Your task to perform on an android device: Show the shopping cart on bestbuy.com. Search for razer naga on bestbuy.com, select the first entry, and add it to the cart. Image 0: 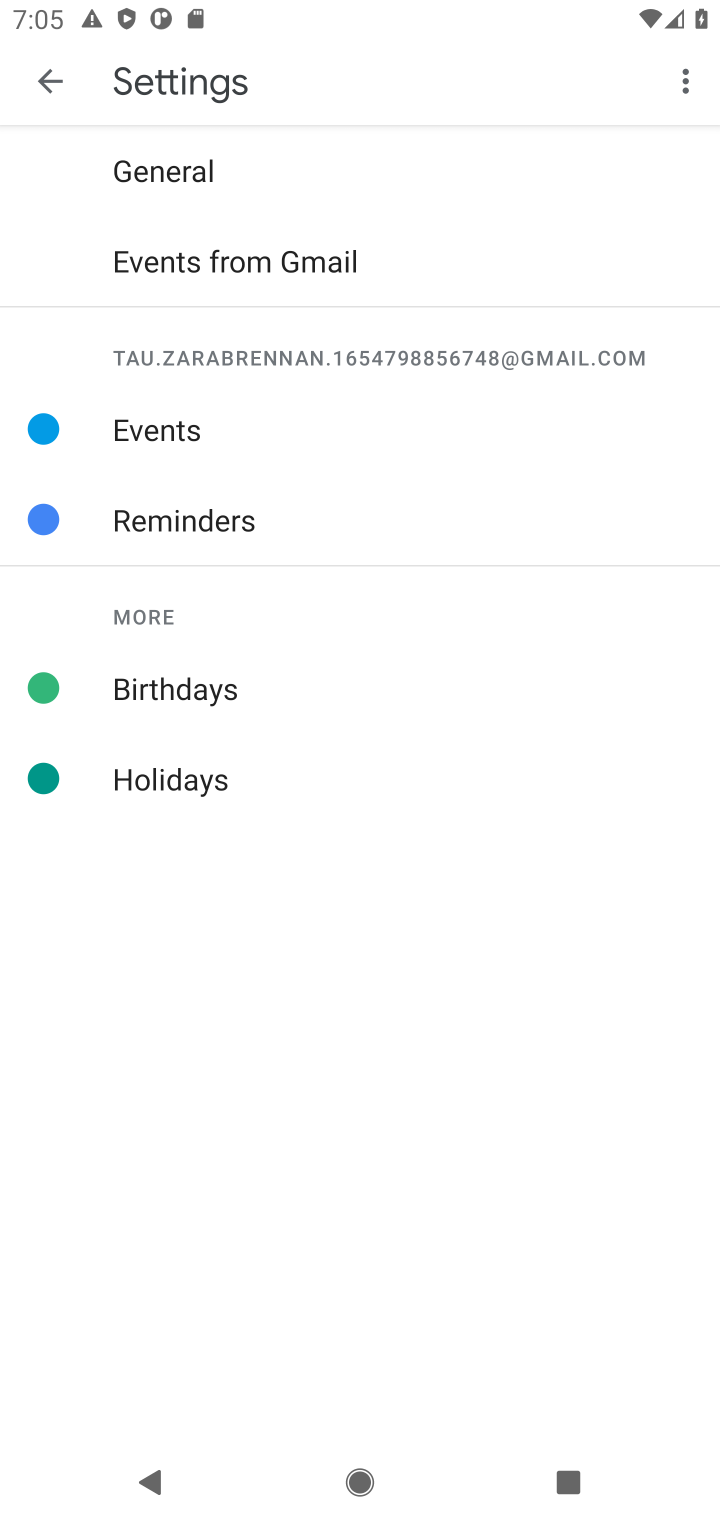
Step 0: press home button
Your task to perform on an android device: Show the shopping cart on bestbuy.com. Search for razer naga on bestbuy.com, select the first entry, and add it to the cart. Image 1: 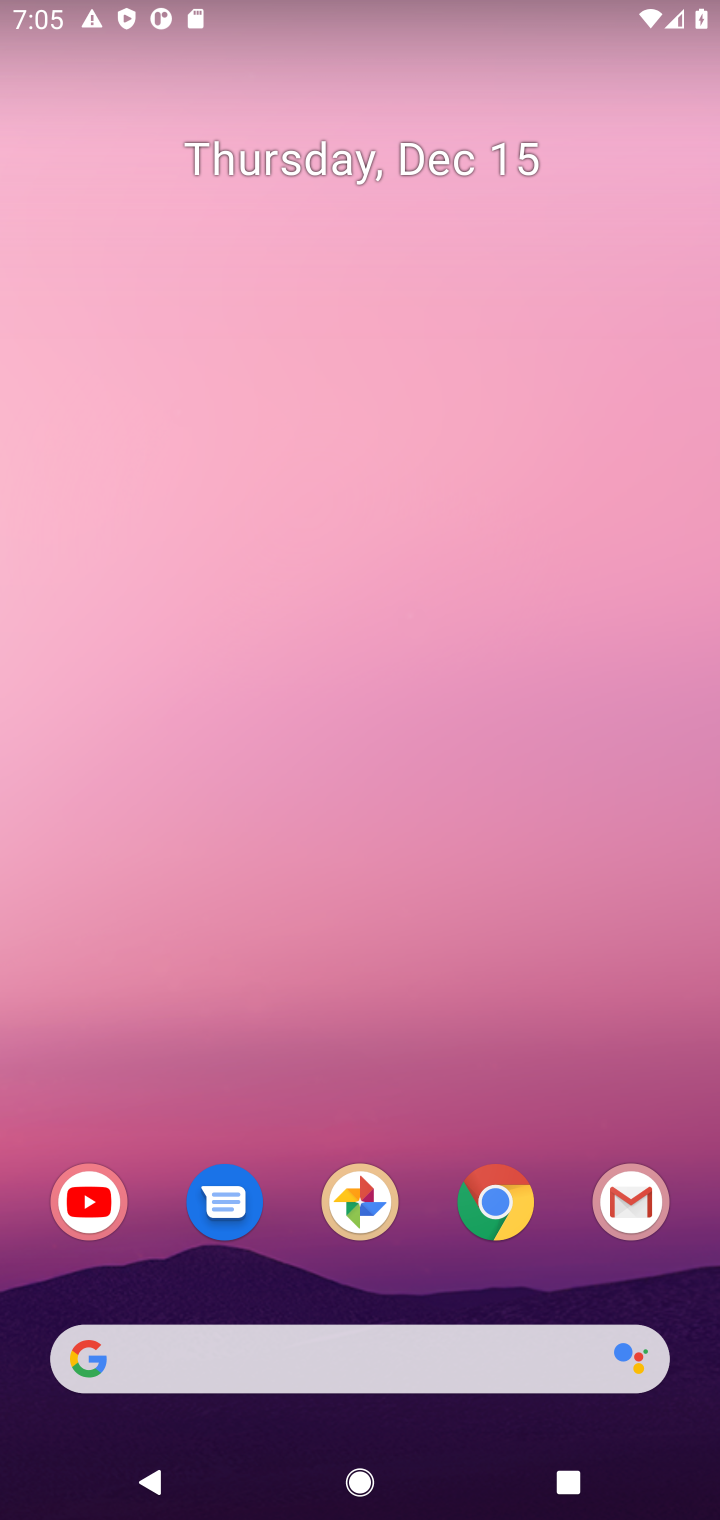
Step 1: click (507, 1207)
Your task to perform on an android device: Show the shopping cart on bestbuy.com. Search for razer naga on bestbuy.com, select the first entry, and add it to the cart. Image 2: 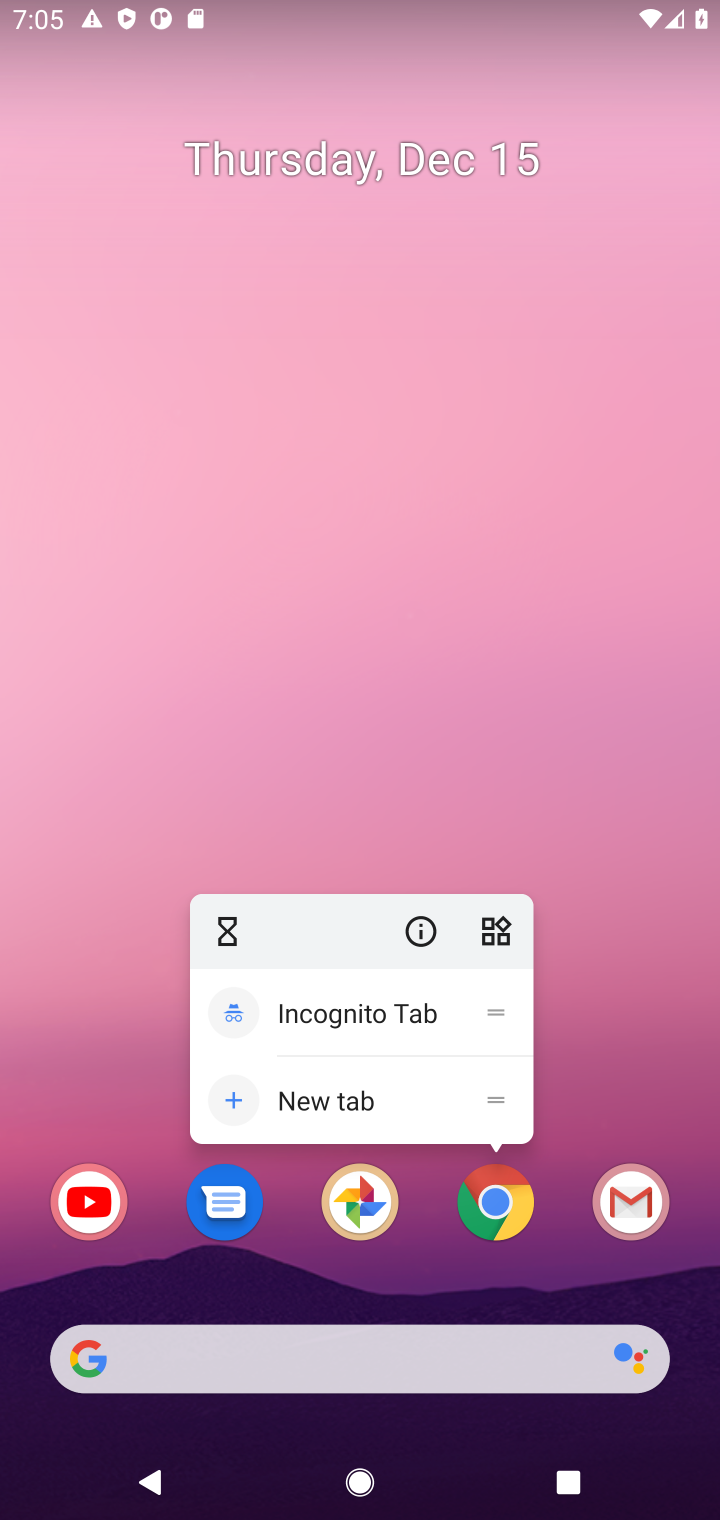
Step 2: click (492, 1210)
Your task to perform on an android device: Show the shopping cart on bestbuy.com. Search for razer naga on bestbuy.com, select the first entry, and add it to the cart. Image 3: 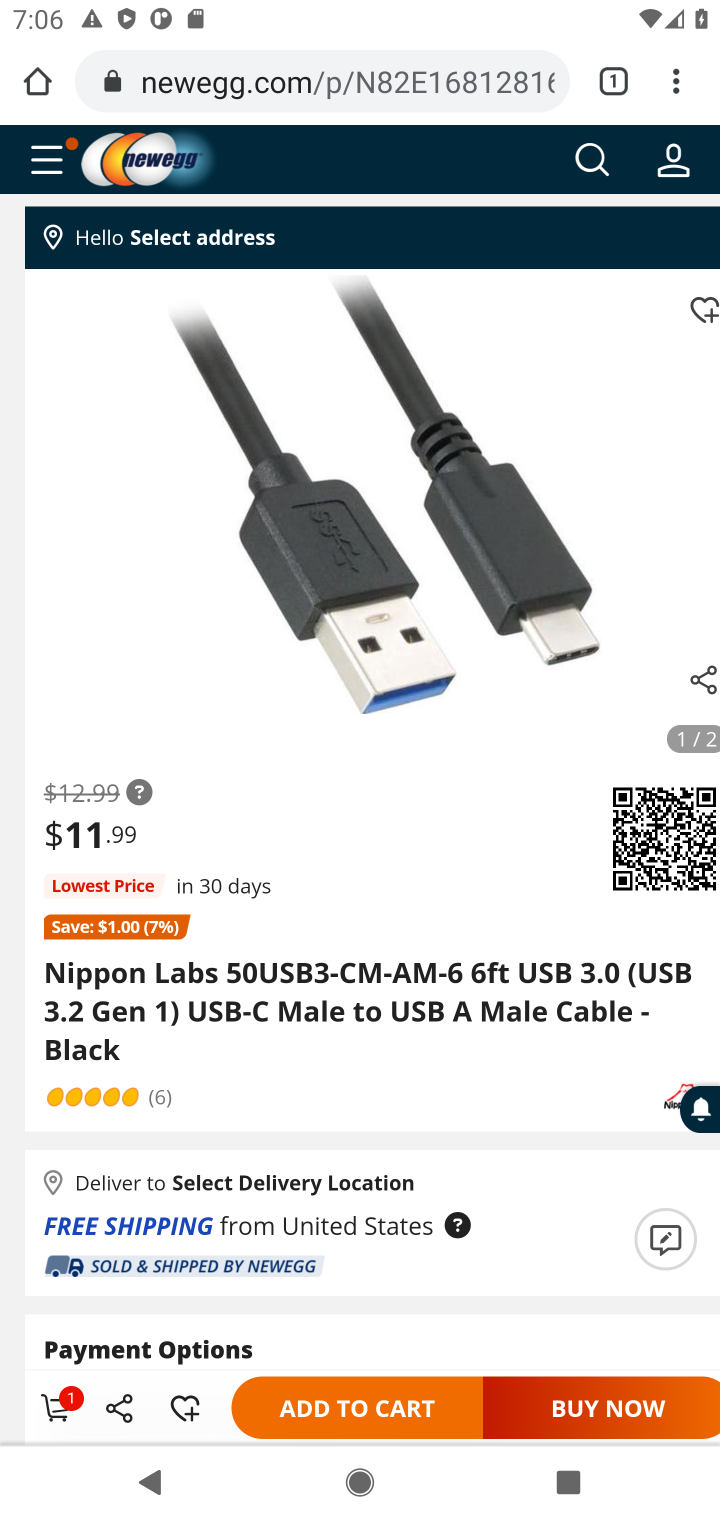
Step 3: click (292, 89)
Your task to perform on an android device: Show the shopping cart on bestbuy.com. Search for razer naga on bestbuy.com, select the first entry, and add it to the cart. Image 4: 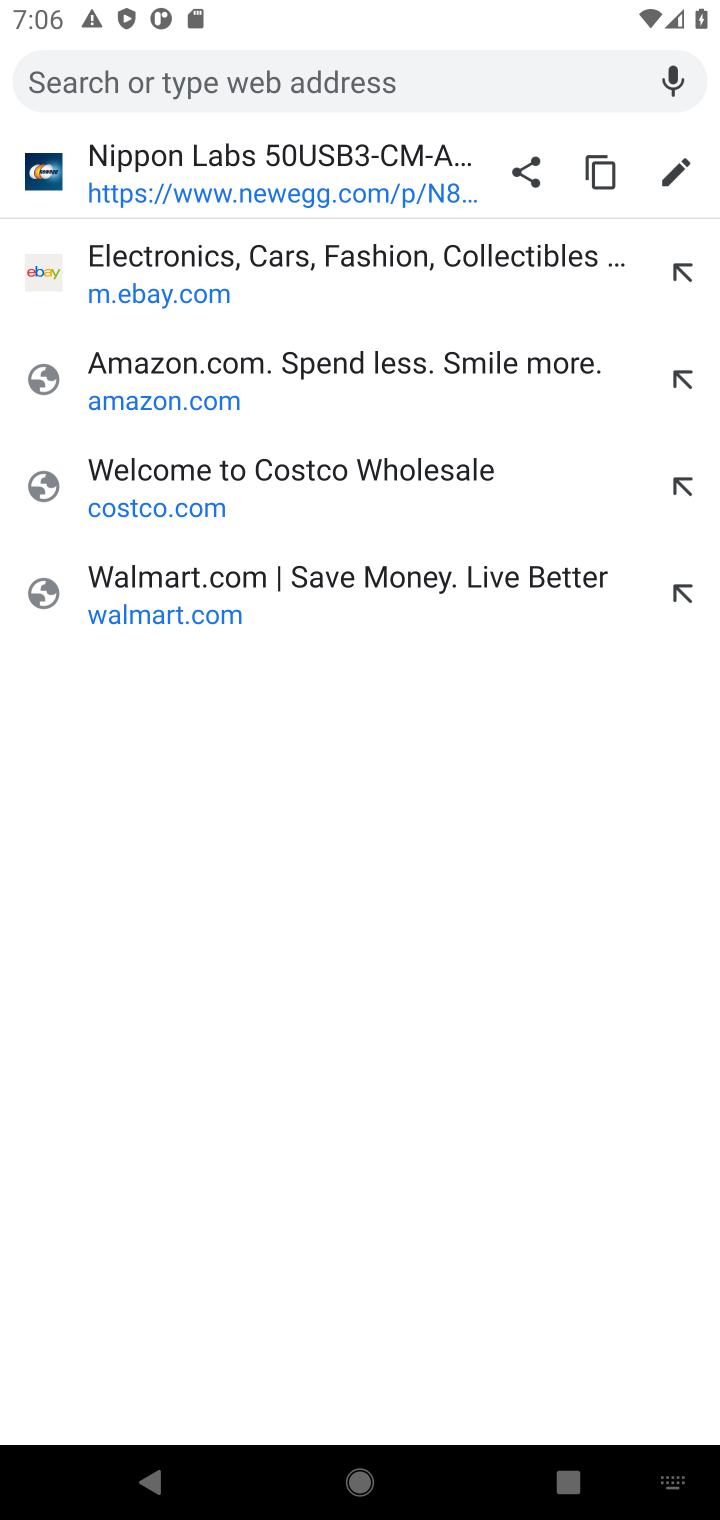
Step 4: type "bestbuy.com"
Your task to perform on an android device: Show the shopping cart on bestbuy.com. Search for razer naga on bestbuy.com, select the first entry, and add it to the cart. Image 5: 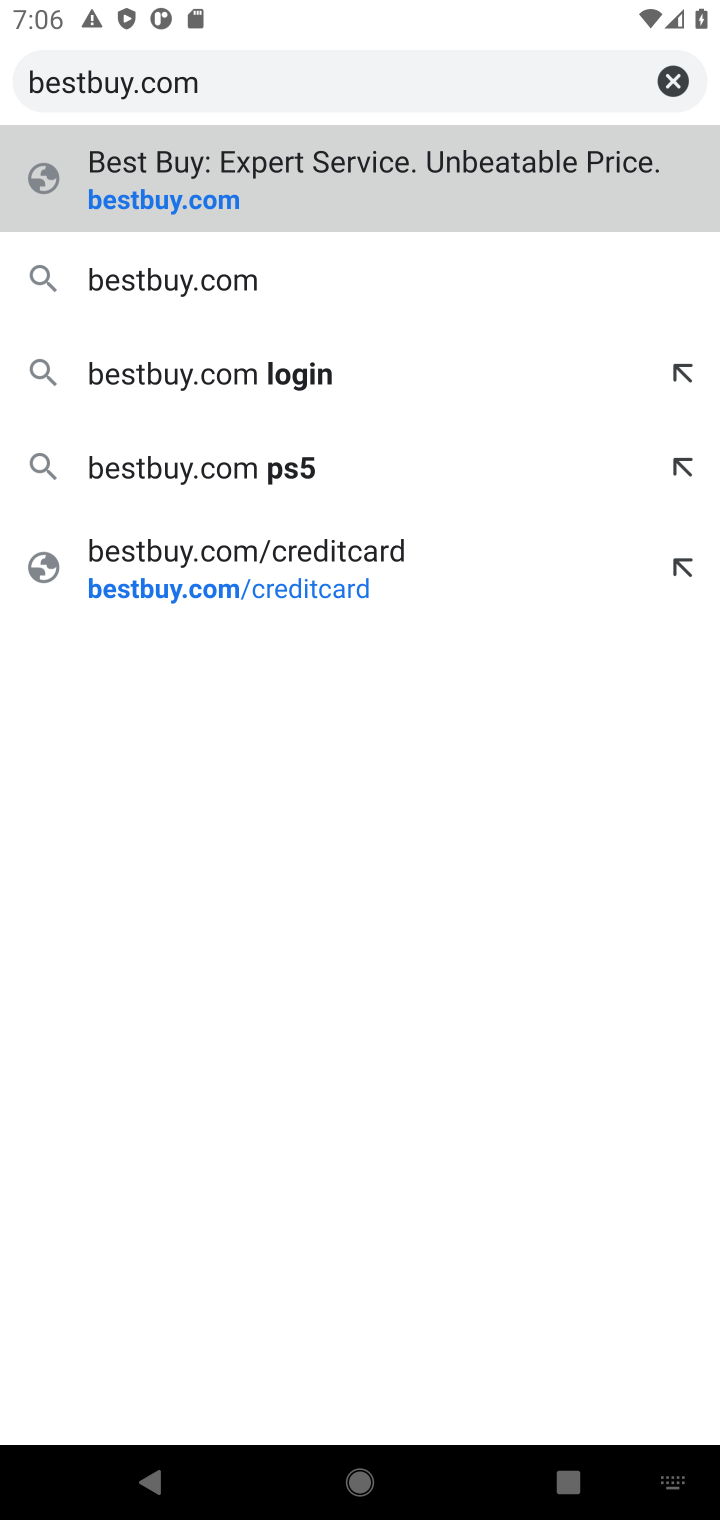
Step 5: click (184, 191)
Your task to perform on an android device: Show the shopping cart on bestbuy.com. Search for razer naga on bestbuy.com, select the first entry, and add it to the cart. Image 6: 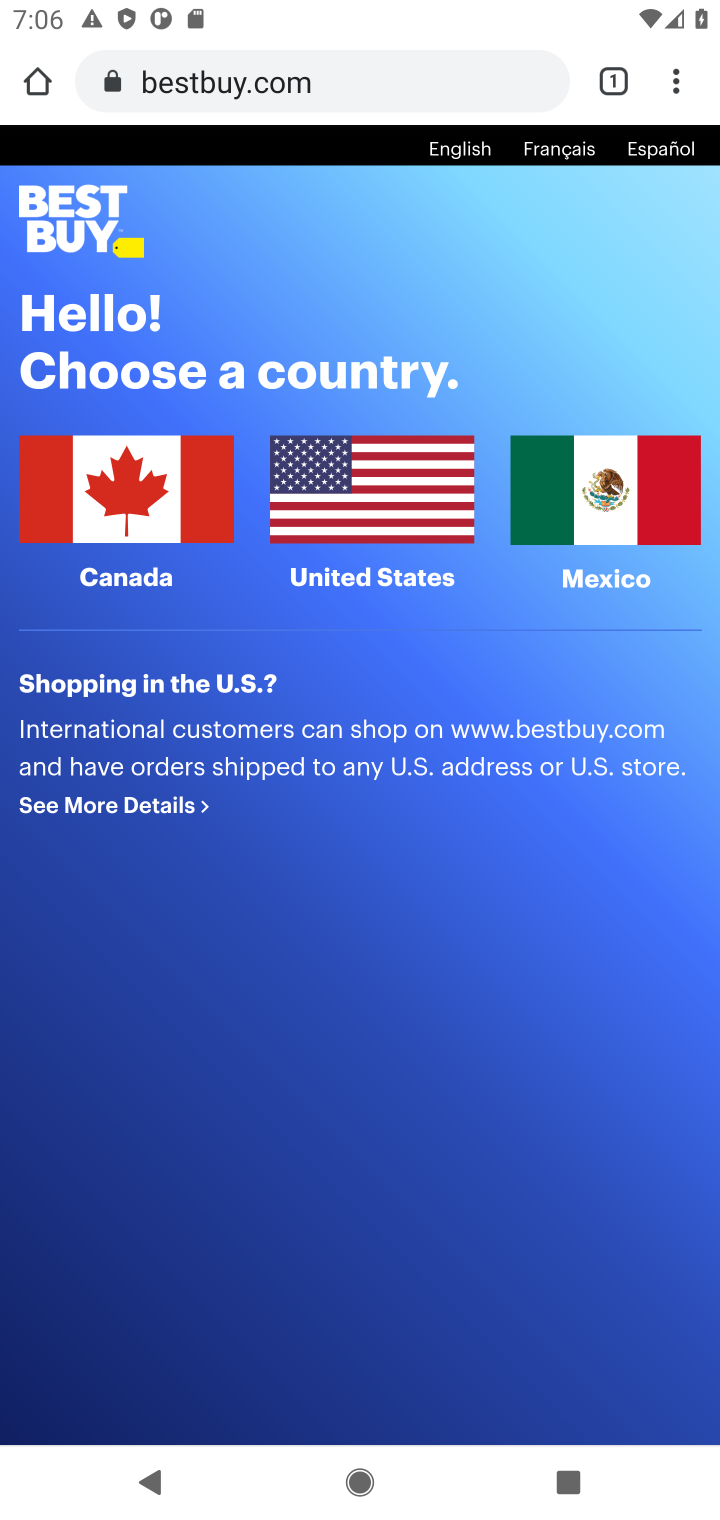
Step 6: click (351, 499)
Your task to perform on an android device: Show the shopping cart on bestbuy.com. Search for razer naga on bestbuy.com, select the first entry, and add it to the cart. Image 7: 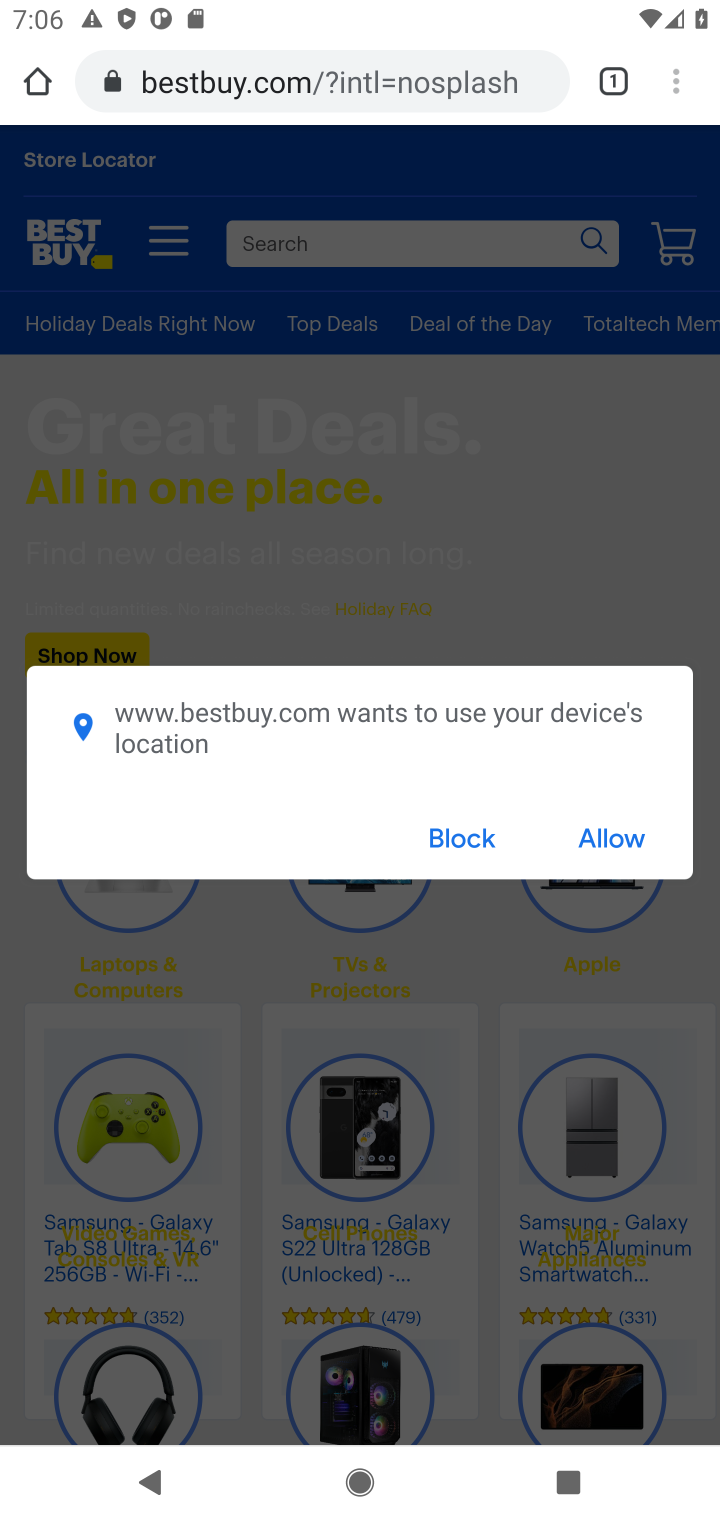
Step 7: click (449, 846)
Your task to perform on an android device: Show the shopping cart on bestbuy.com. Search for razer naga on bestbuy.com, select the first entry, and add it to the cart. Image 8: 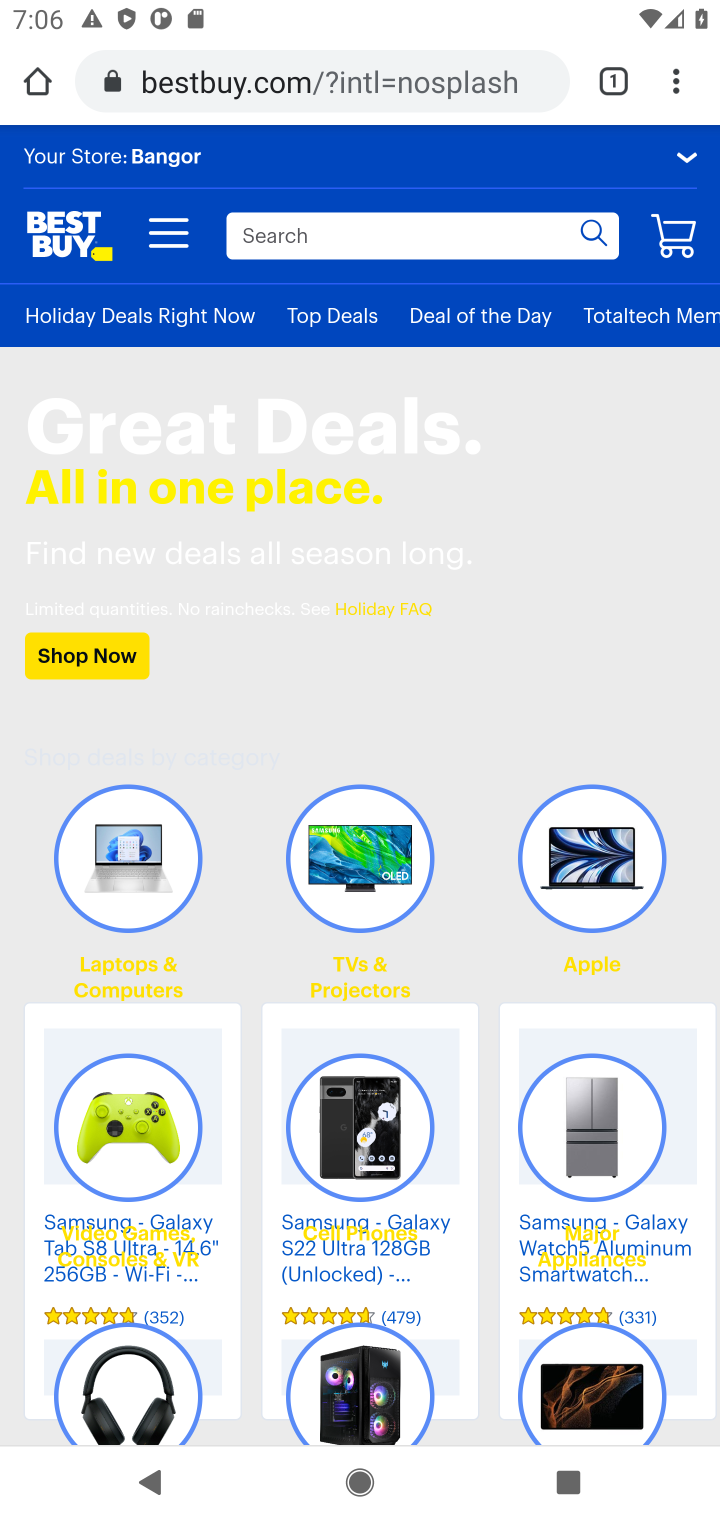
Step 8: click (660, 251)
Your task to perform on an android device: Show the shopping cart on bestbuy.com. Search for razer naga on bestbuy.com, select the first entry, and add it to the cart. Image 9: 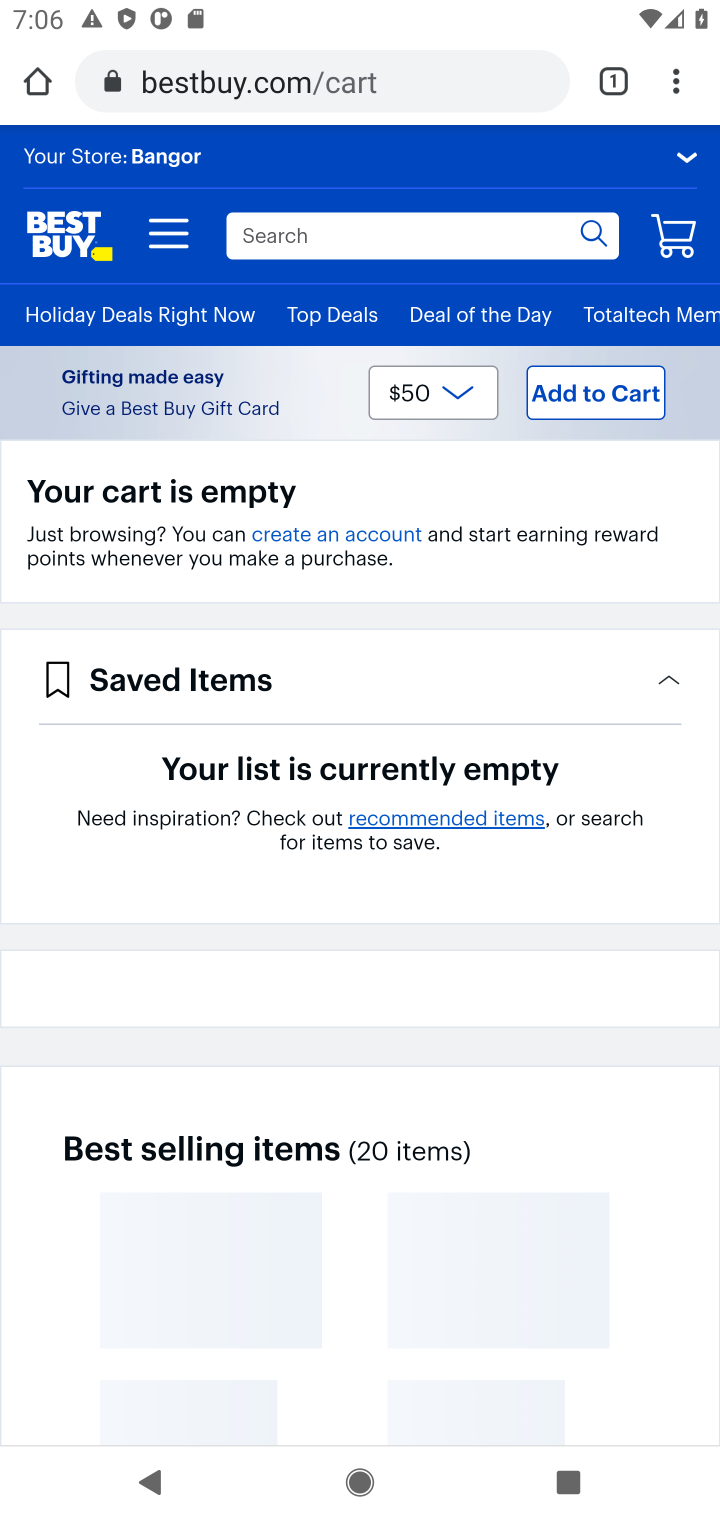
Step 9: click (335, 238)
Your task to perform on an android device: Show the shopping cart on bestbuy.com. Search for razer naga on bestbuy.com, select the first entry, and add it to the cart. Image 10: 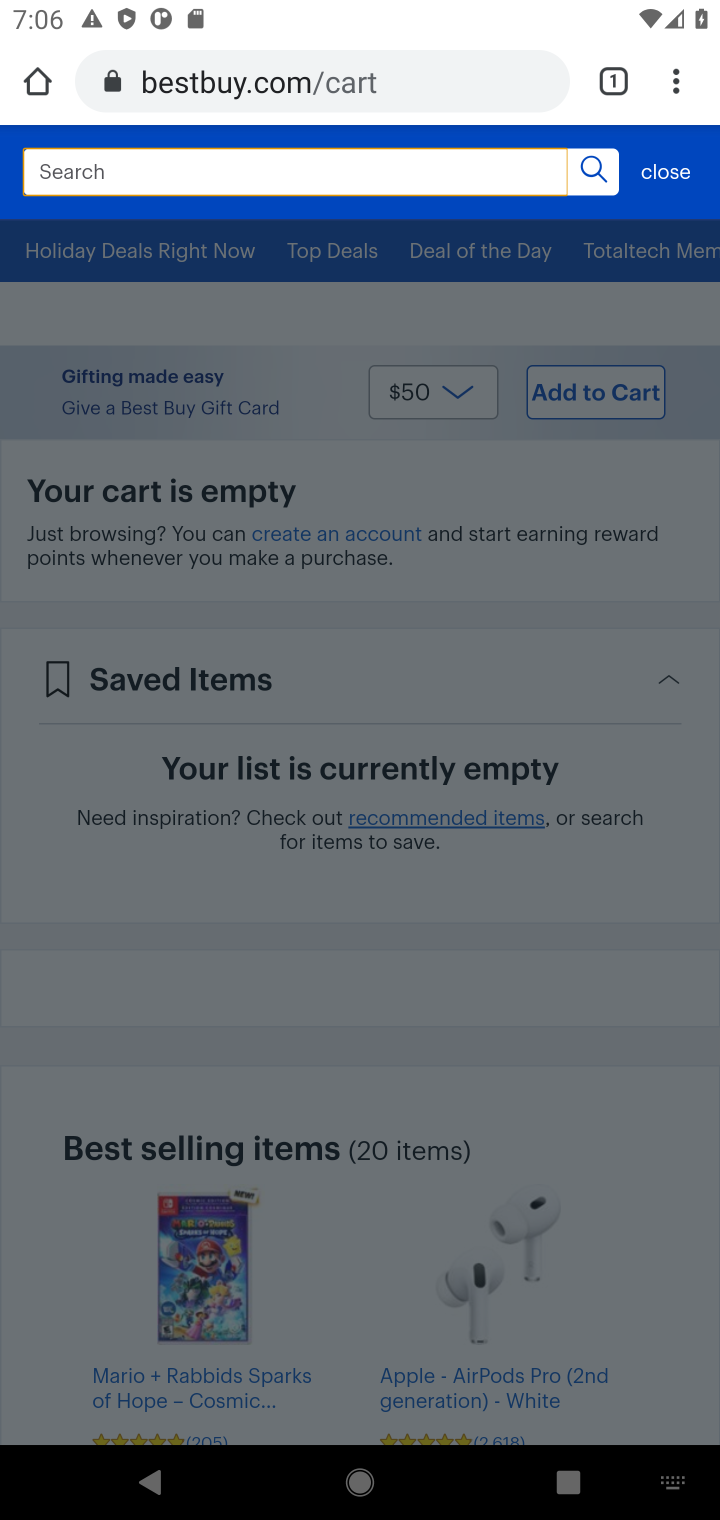
Step 10: type "razer naga "
Your task to perform on an android device: Show the shopping cart on bestbuy.com. Search for razer naga on bestbuy.com, select the first entry, and add it to the cart. Image 11: 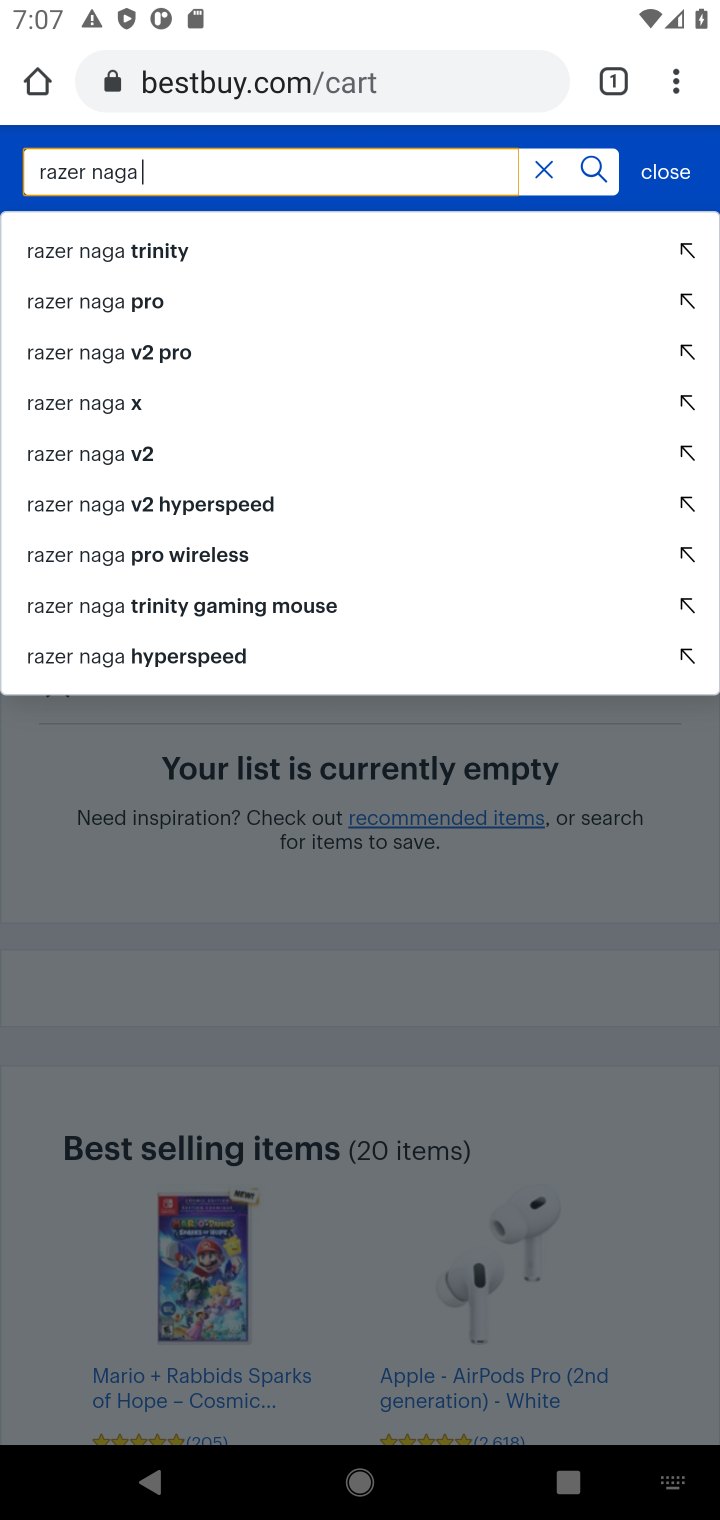
Step 11: click (594, 177)
Your task to perform on an android device: Show the shopping cart on bestbuy.com. Search for razer naga on bestbuy.com, select the first entry, and add it to the cart. Image 12: 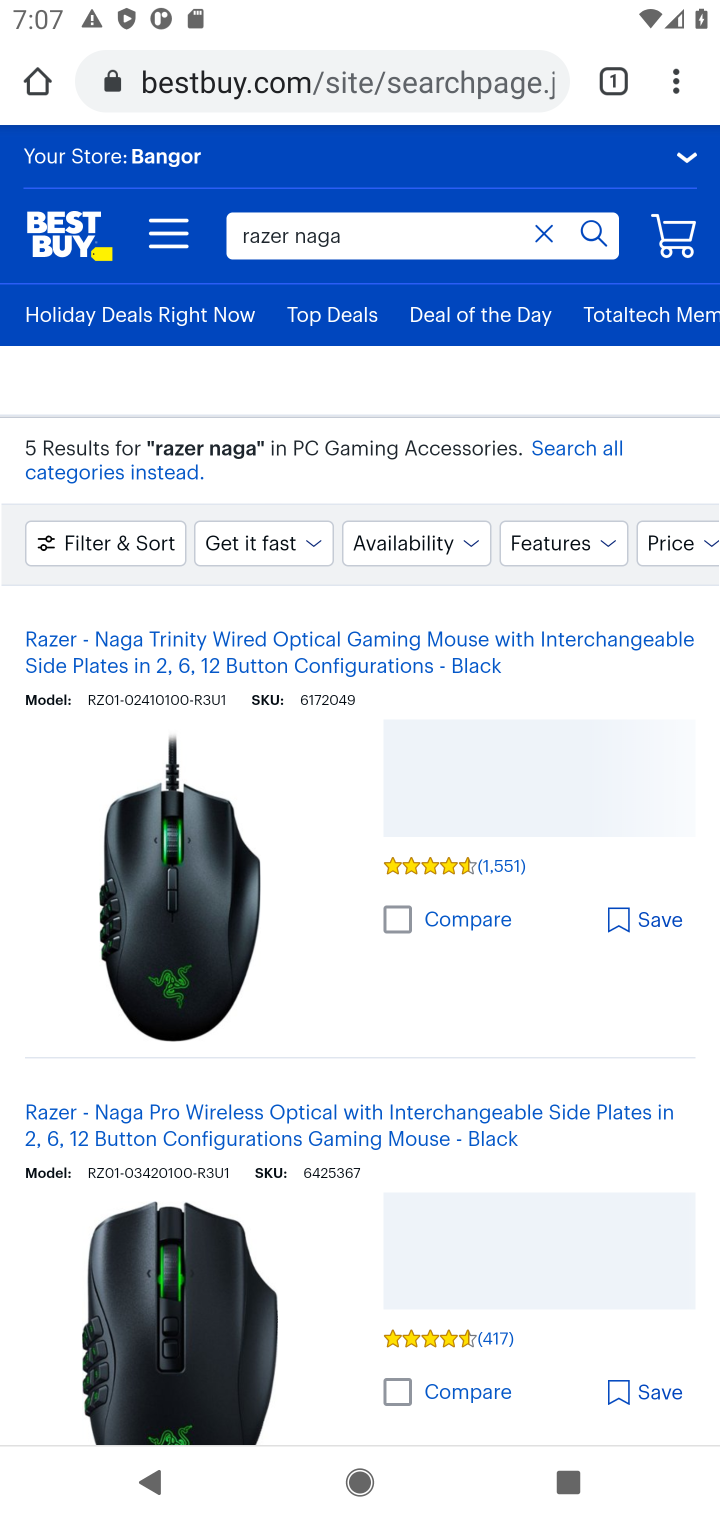
Step 12: click (192, 937)
Your task to perform on an android device: Show the shopping cart on bestbuy.com. Search for razer naga on bestbuy.com, select the first entry, and add it to the cart. Image 13: 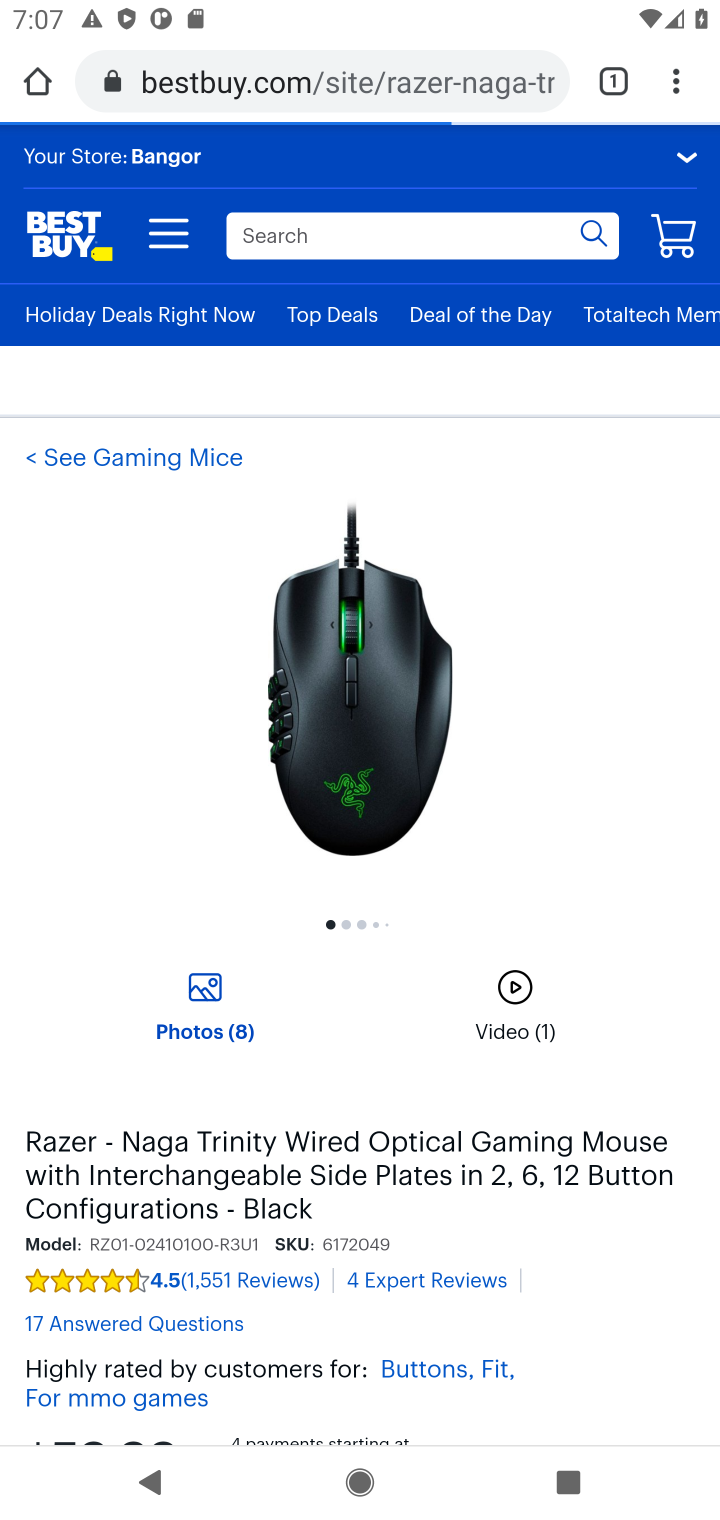
Step 13: drag from (251, 1048) to (218, 514)
Your task to perform on an android device: Show the shopping cart on bestbuy.com. Search for razer naga on bestbuy.com, select the first entry, and add it to the cart. Image 14: 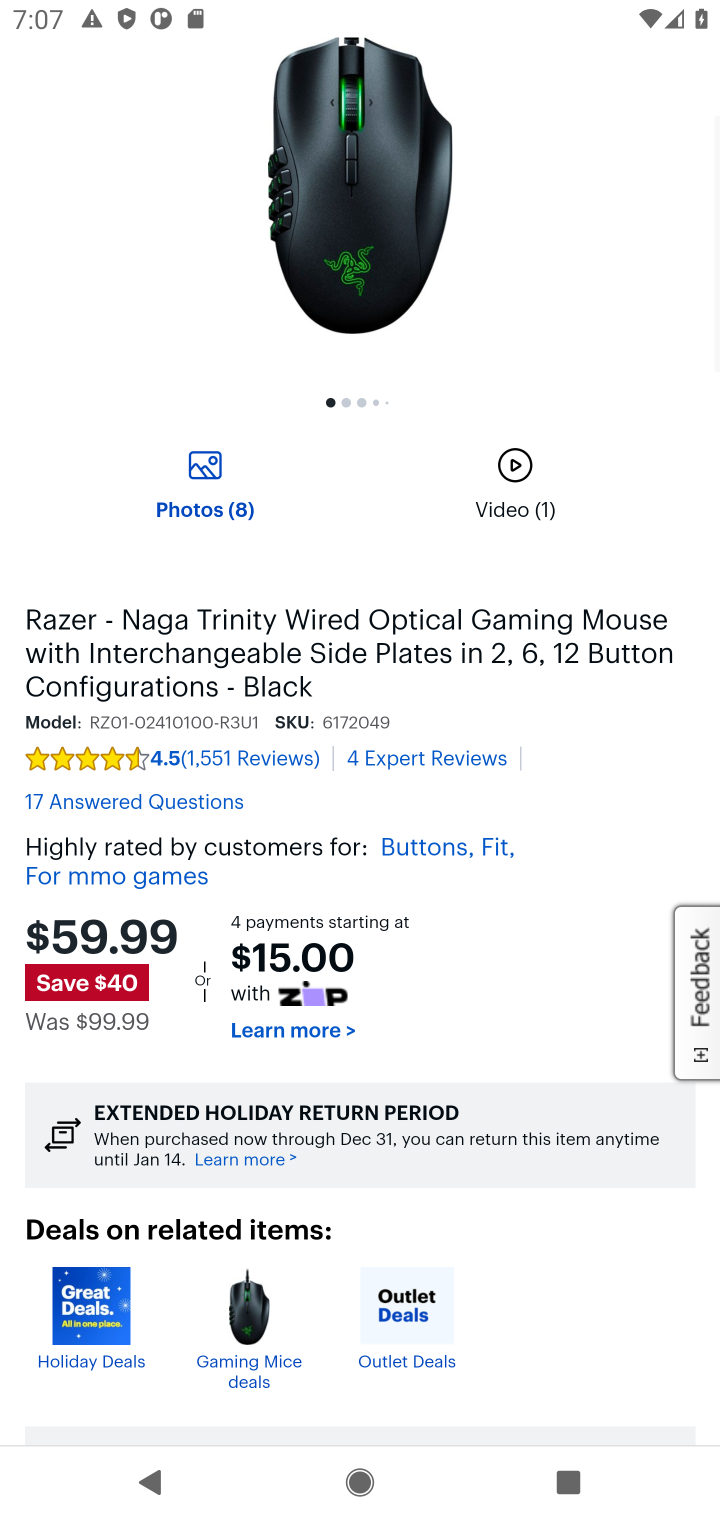
Step 14: drag from (260, 1051) to (279, 446)
Your task to perform on an android device: Show the shopping cart on bestbuy.com. Search for razer naga on bestbuy.com, select the first entry, and add it to the cart. Image 15: 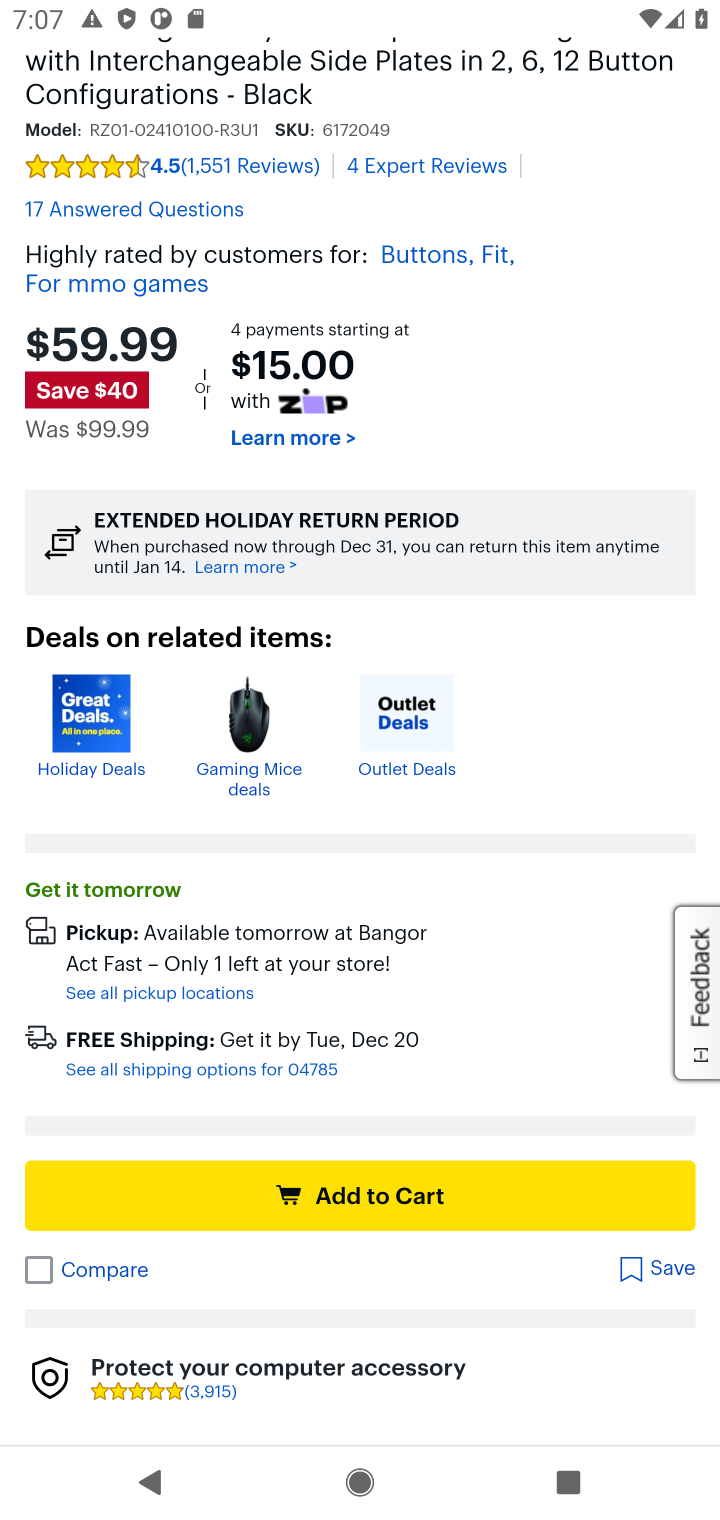
Step 15: click (291, 1171)
Your task to perform on an android device: Show the shopping cart on bestbuy.com. Search for razer naga on bestbuy.com, select the first entry, and add it to the cart. Image 16: 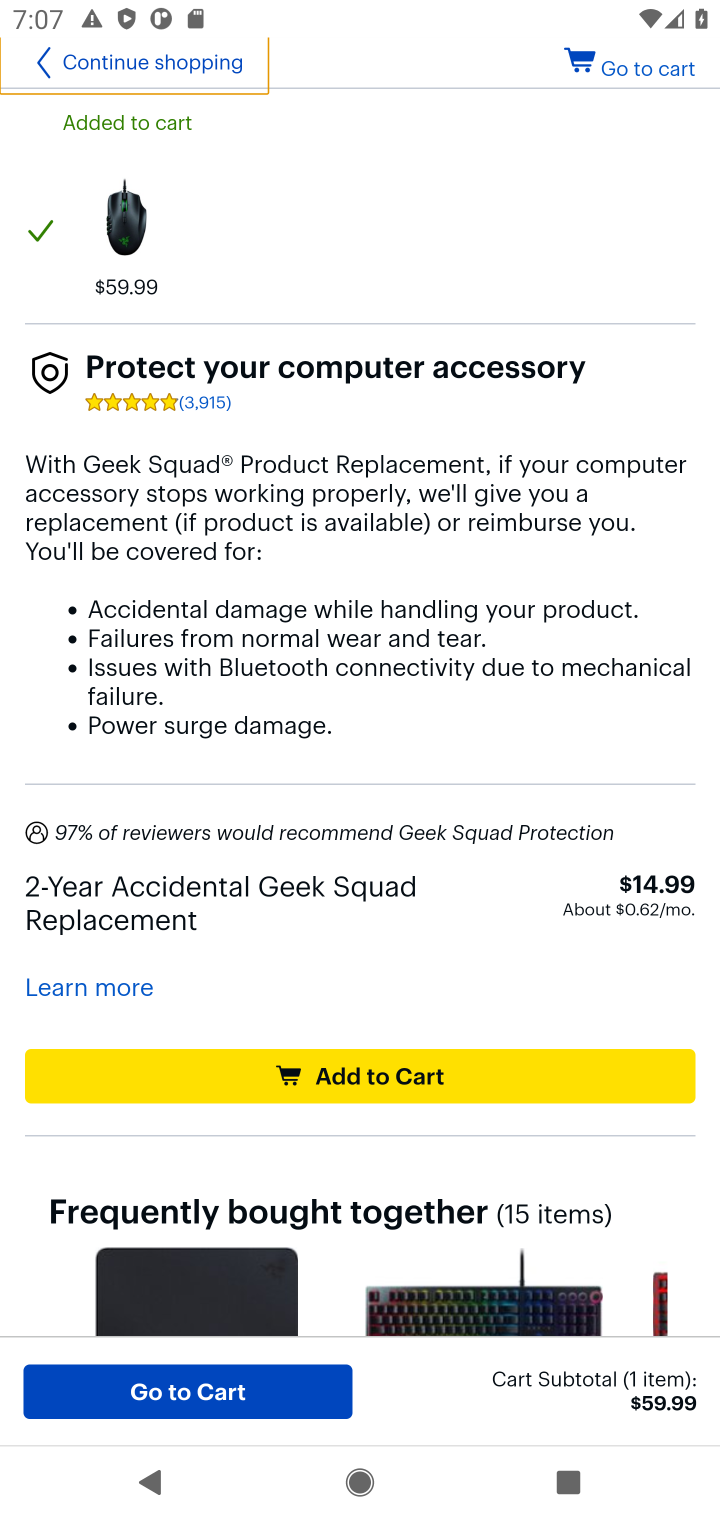
Step 16: task complete